Your task to perform on an android device: turn off smart reply in the gmail app Image 0: 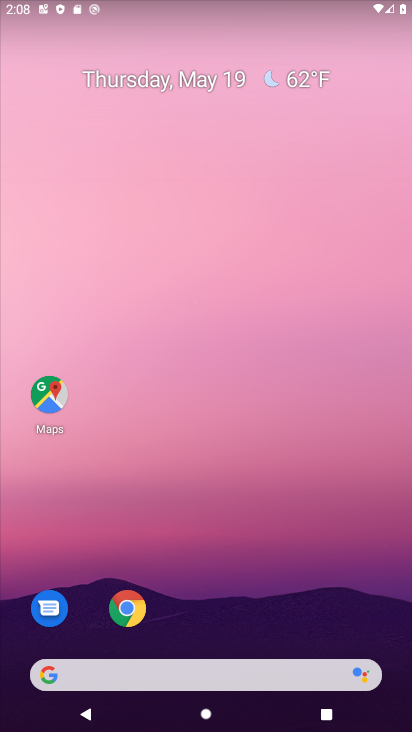
Step 0: drag from (238, 437) to (245, 134)
Your task to perform on an android device: turn off smart reply in the gmail app Image 1: 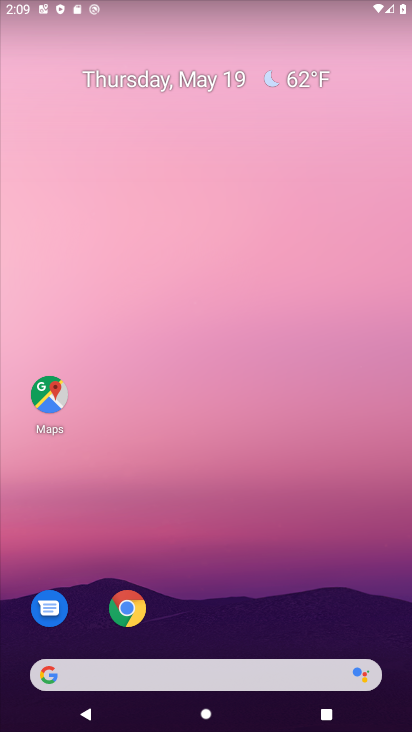
Step 1: drag from (234, 597) to (248, 185)
Your task to perform on an android device: turn off smart reply in the gmail app Image 2: 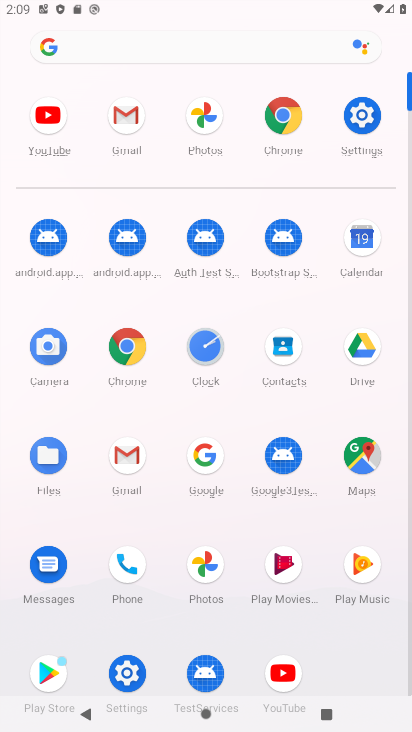
Step 2: click (123, 131)
Your task to perform on an android device: turn off smart reply in the gmail app Image 3: 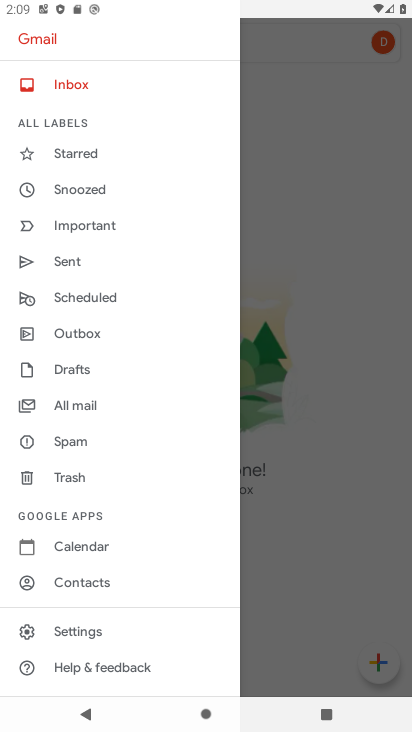
Step 3: click (148, 631)
Your task to perform on an android device: turn off smart reply in the gmail app Image 4: 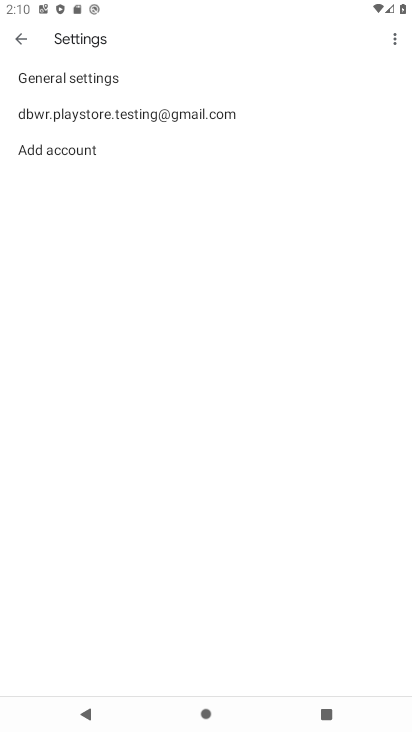
Step 4: click (72, 127)
Your task to perform on an android device: turn off smart reply in the gmail app Image 5: 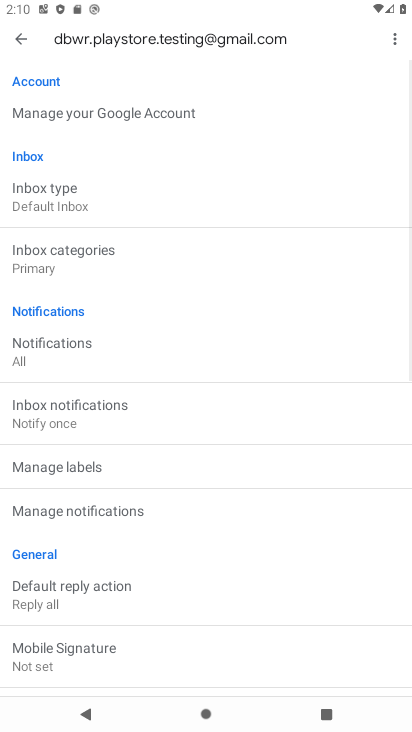
Step 5: drag from (120, 655) to (182, 230)
Your task to perform on an android device: turn off smart reply in the gmail app Image 6: 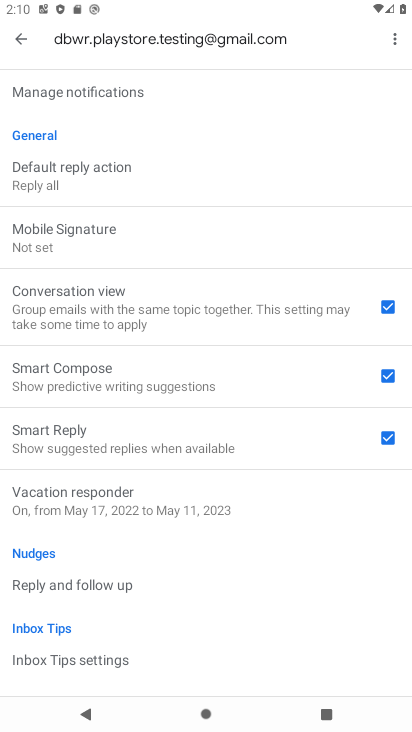
Step 6: click (184, 447)
Your task to perform on an android device: turn off smart reply in the gmail app Image 7: 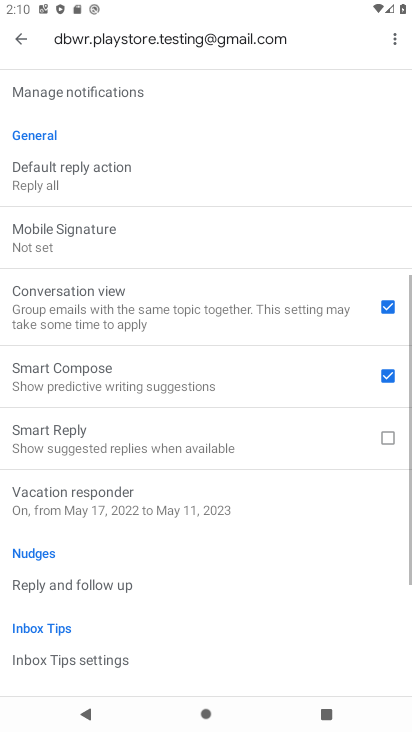
Step 7: task complete